Your task to perform on an android device: Open maps Image 0: 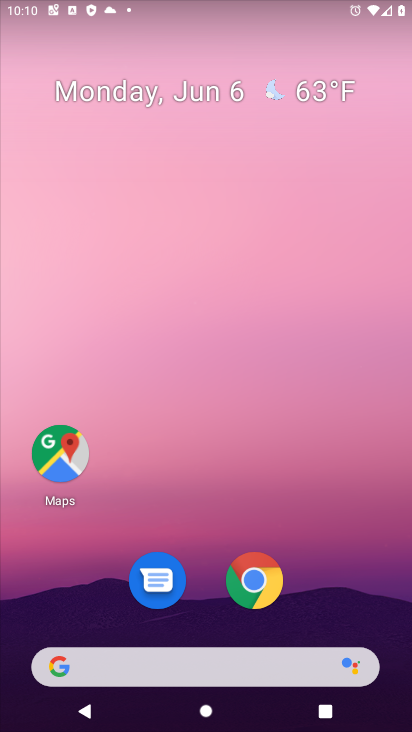
Step 0: drag from (334, 569) to (101, 19)
Your task to perform on an android device: Open maps Image 1: 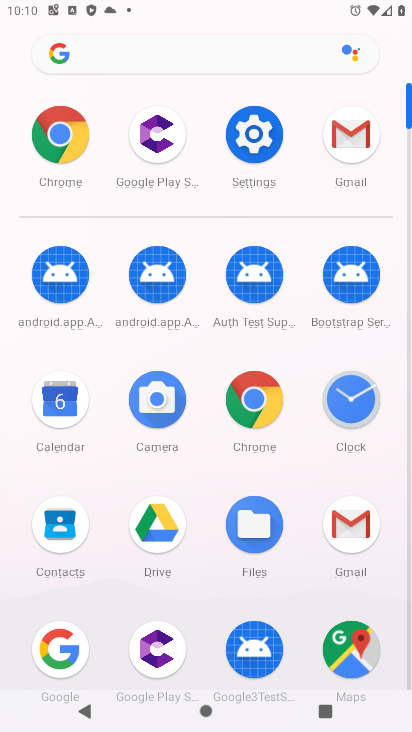
Step 1: click (362, 642)
Your task to perform on an android device: Open maps Image 2: 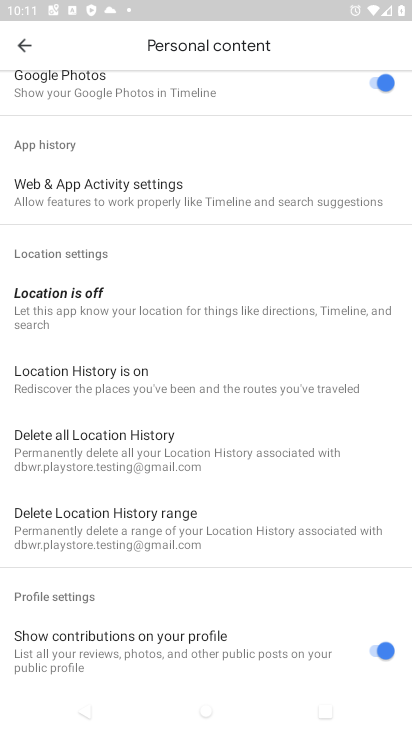
Step 2: task complete